Your task to perform on an android device: Open Chrome and go to settings Image 0: 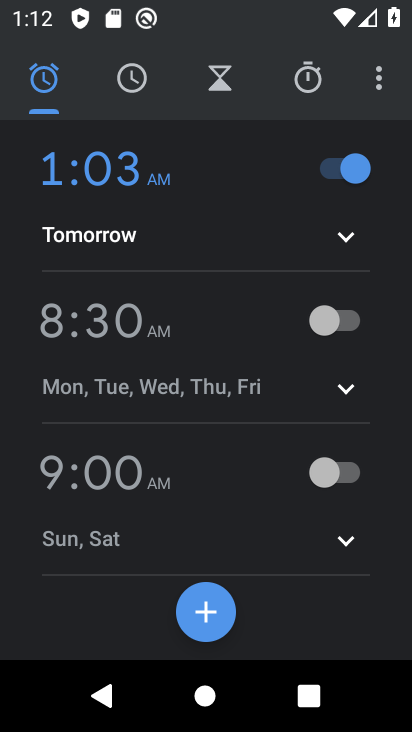
Step 0: press home button
Your task to perform on an android device: Open Chrome and go to settings Image 1: 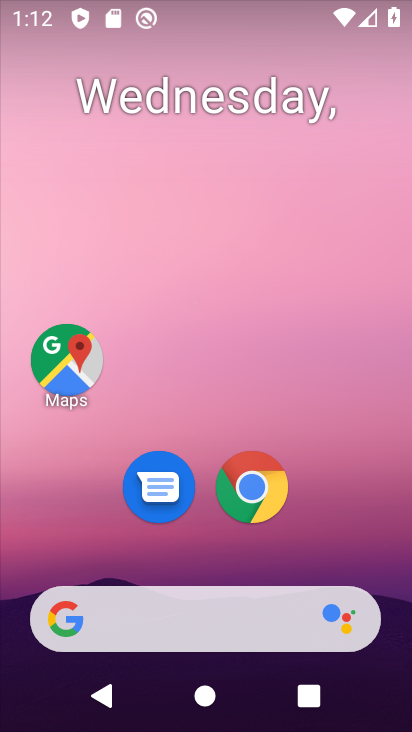
Step 1: click (266, 485)
Your task to perform on an android device: Open Chrome and go to settings Image 2: 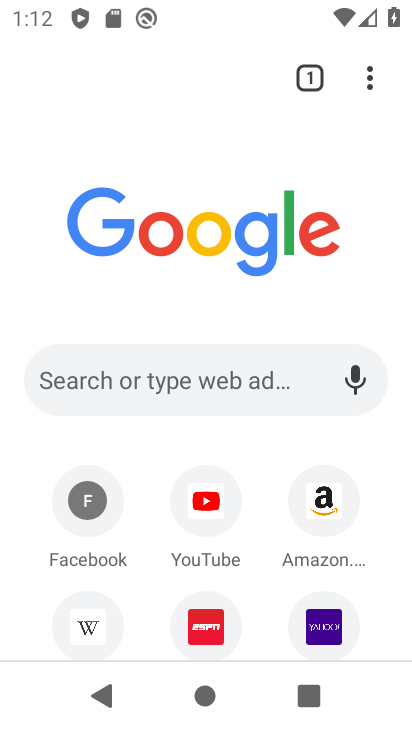
Step 2: click (381, 78)
Your task to perform on an android device: Open Chrome and go to settings Image 3: 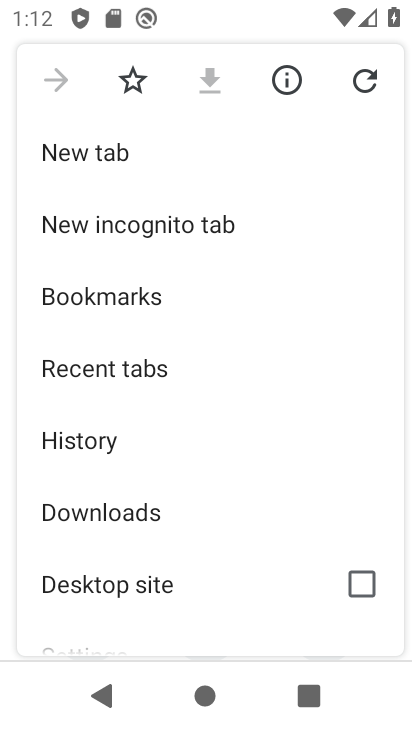
Step 3: drag from (239, 561) to (240, 156)
Your task to perform on an android device: Open Chrome and go to settings Image 4: 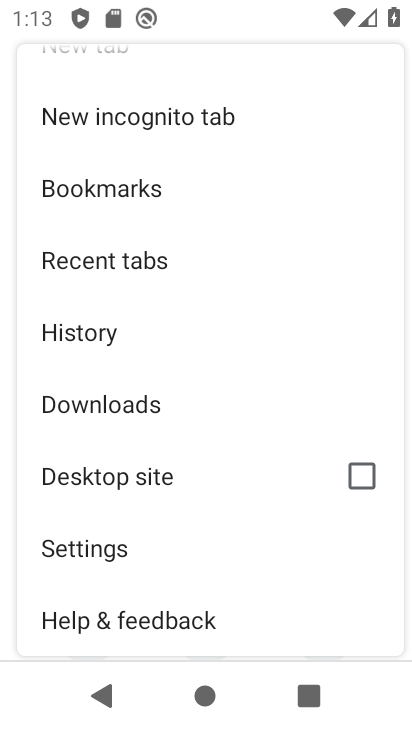
Step 4: click (201, 559)
Your task to perform on an android device: Open Chrome and go to settings Image 5: 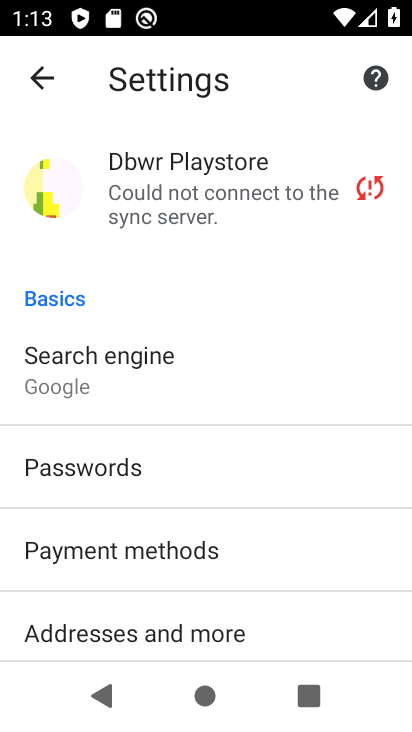
Step 5: task complete